Your task to perform on an android device: Open display settings Image 0: 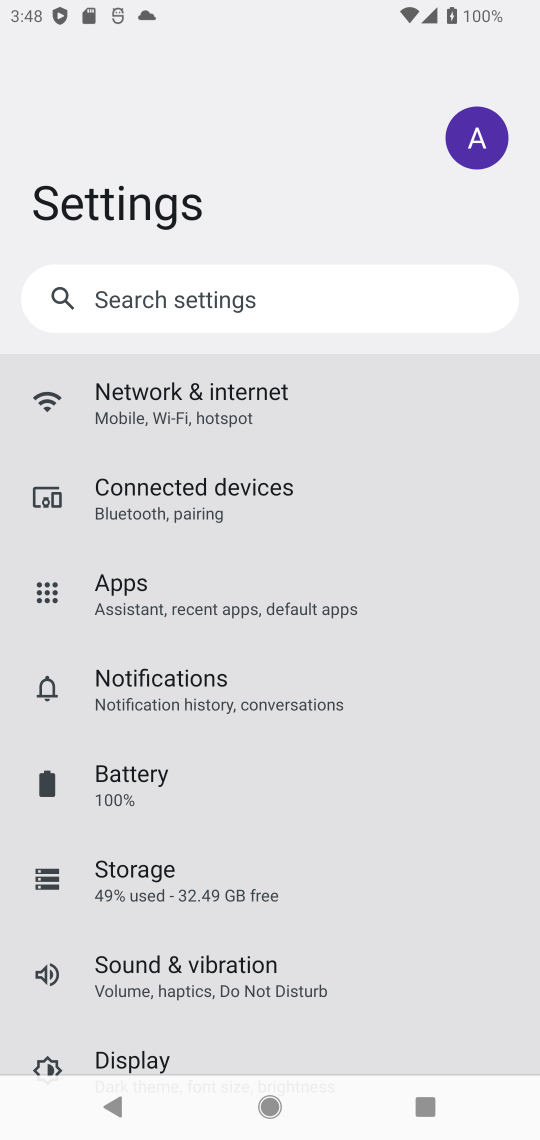
Step 0: click (103, 1054)
Your task to perform on an android device: Open display settings Image 1: 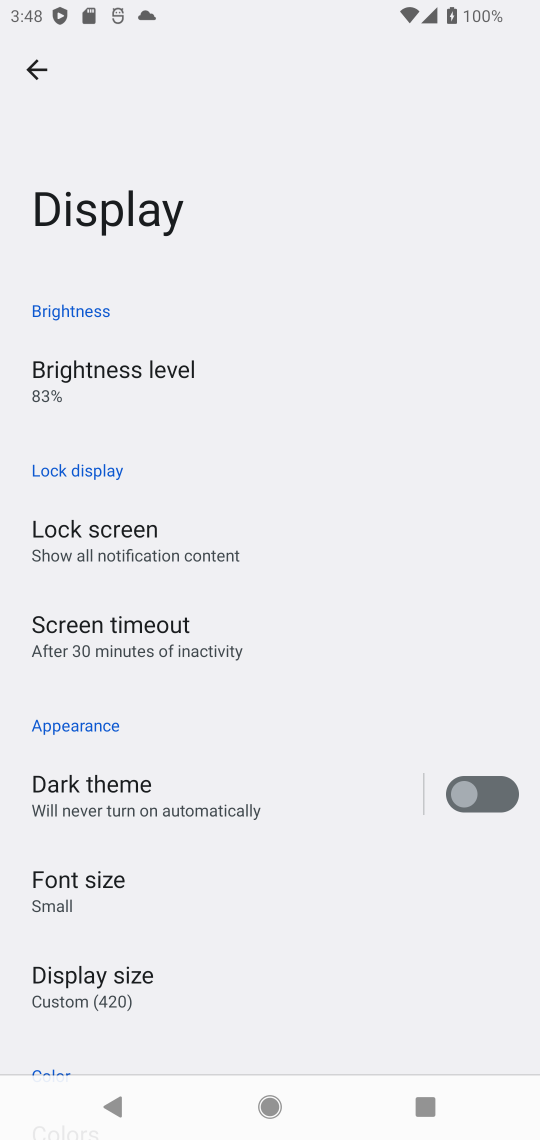
Step 1: task complete